Your task to perform on an android device: Add bose soundsport free to the cart on amazon.com, then select checkout. Image 0: 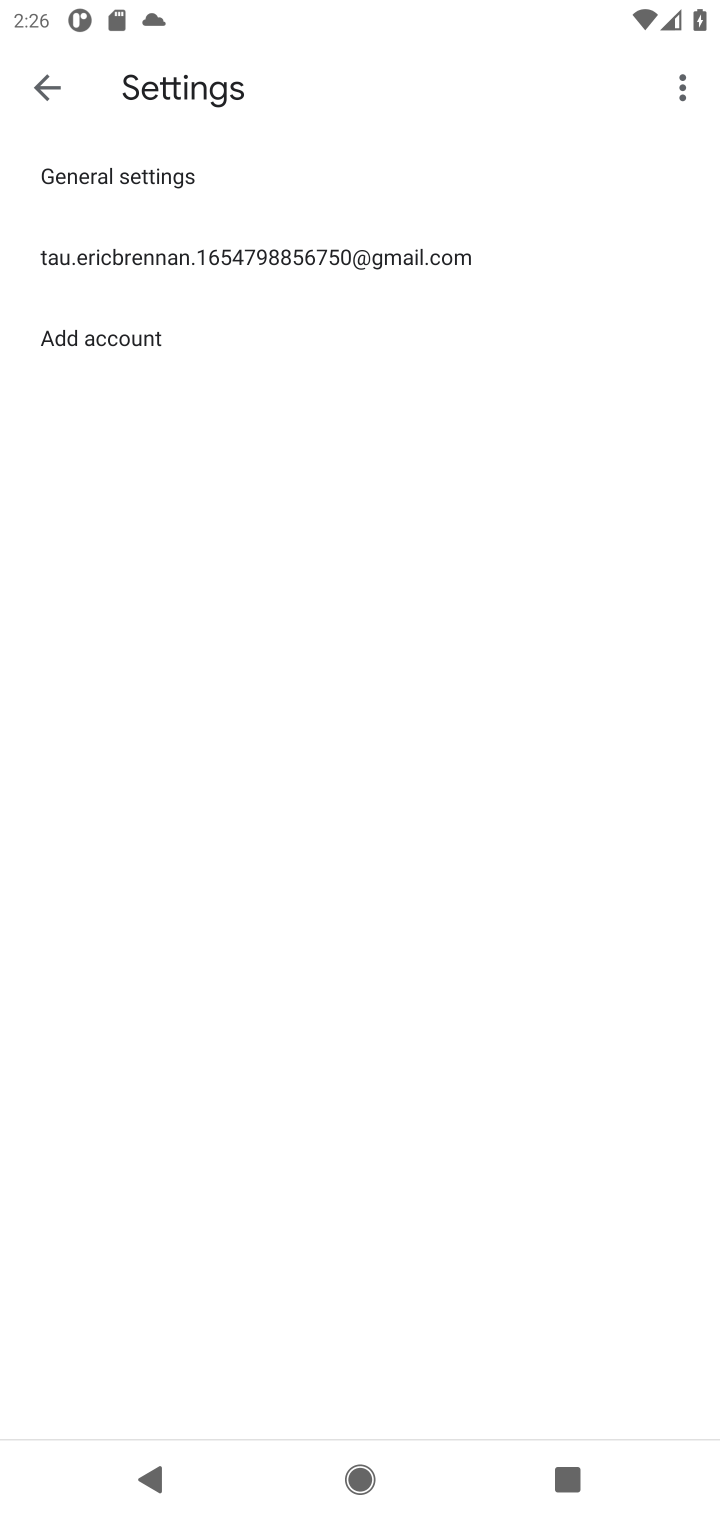
Step 0: press home button
Your task to perform on an android device: Add bose soundsport free to the cart on amazon.com, then select checkout. Image 1: 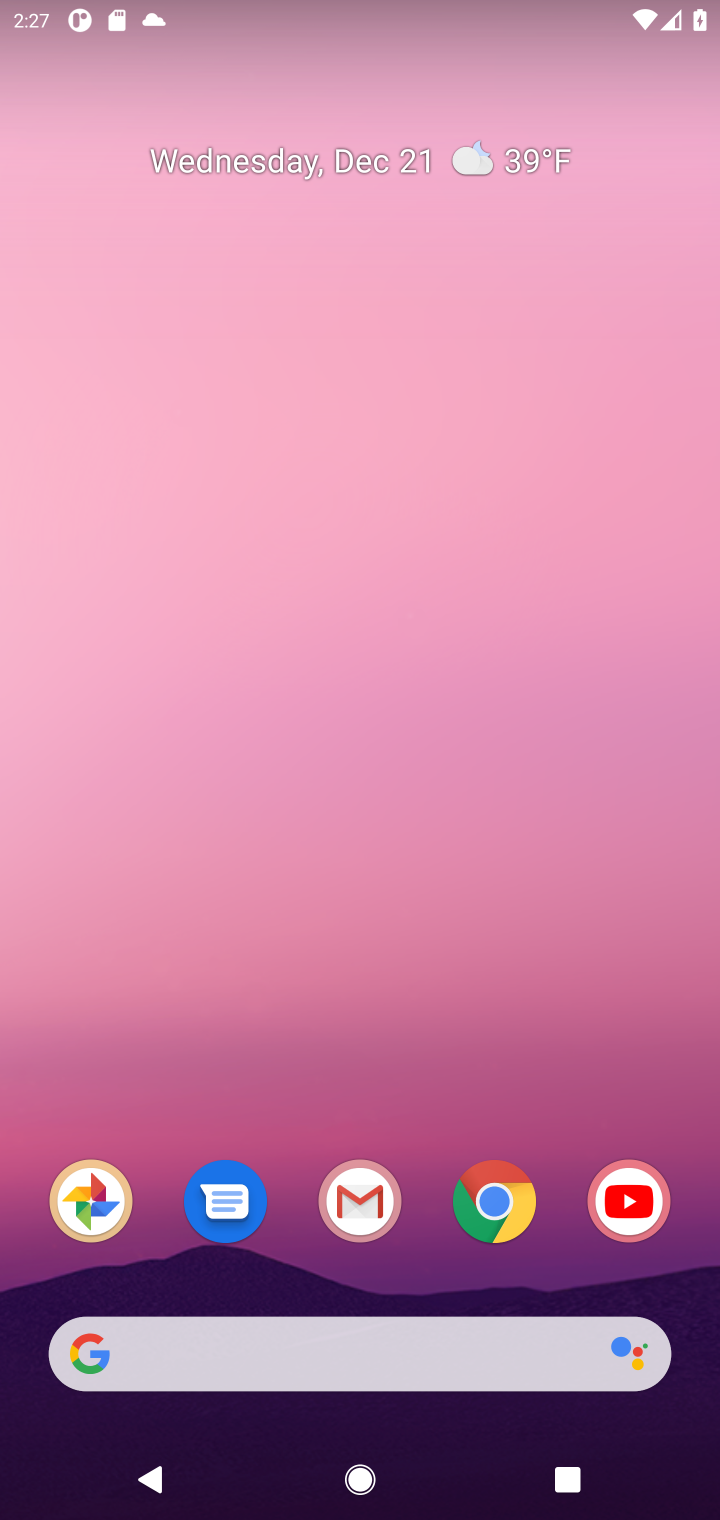
Step 1: click (493, 1211)
Your task to perform on an android device: Add bose soundsport free to the cart on amazon.com, then select checkout. Image 2: 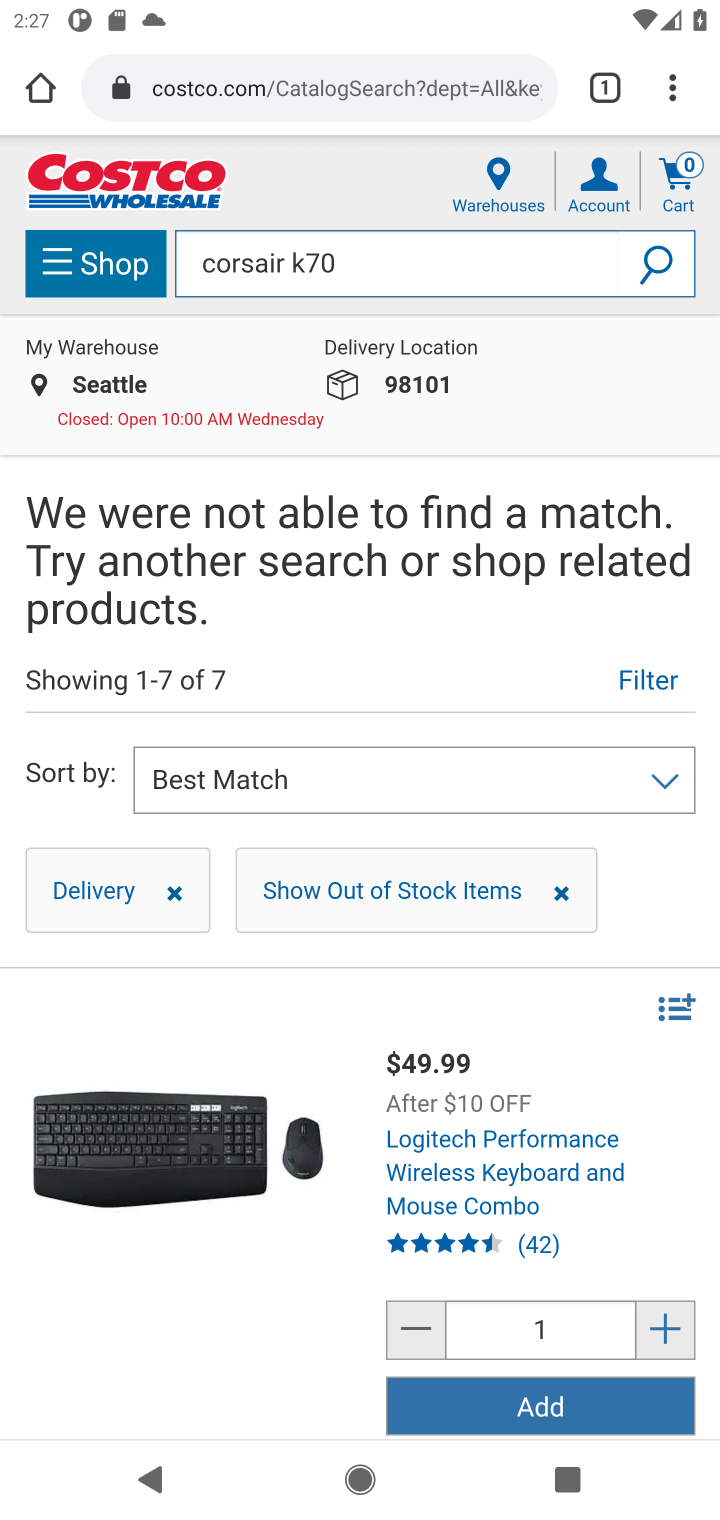
Step 2: click (275, 101)
Your task to perform on an android device: Add bose soundsport free to the cart on amazon.com, then select checkout. Image 3: 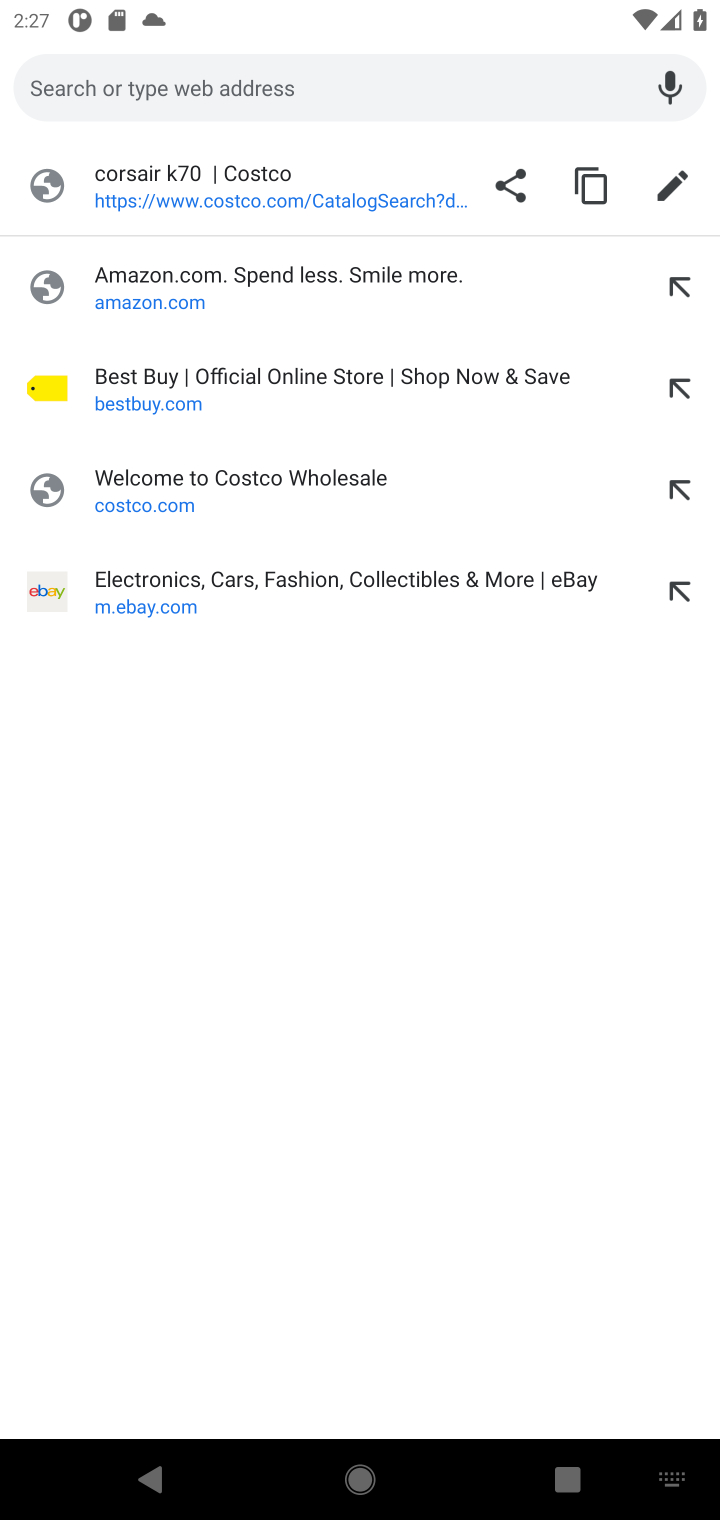
Step 3: click (133, 290)
Your task to perform on an android device: Add bose soundsport free to the cart on amazon.com, then select checkout. Image 4: 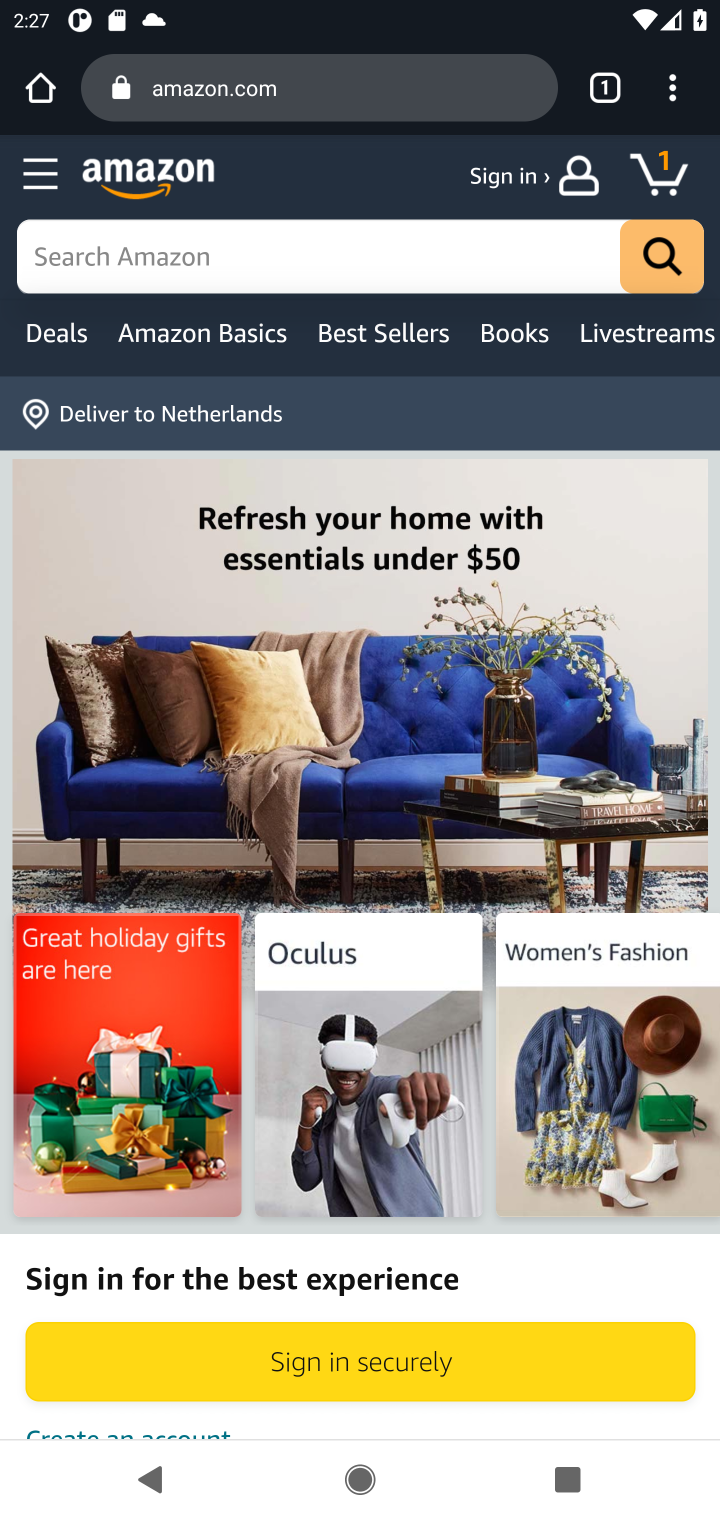
Step 4: click (119, 270)
Your task to perform on an android device: Add bose soundsport free to the cart on amazon.com, then select checkout. Image 5: 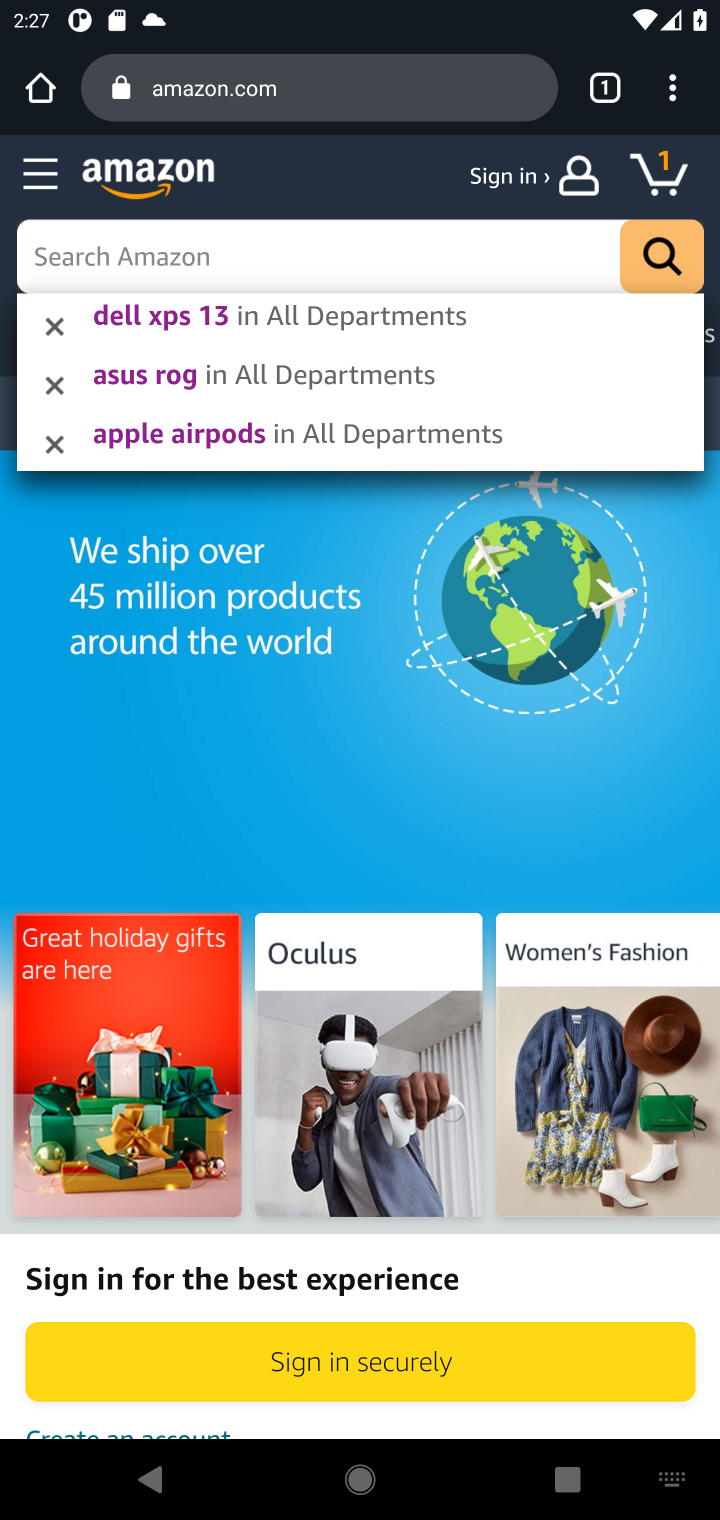
Step 5: type " bose soundsport free"
Your task to perform on an android device: Add bose soundsport free to the cart on amazon.com, then select checkout. Image 6: 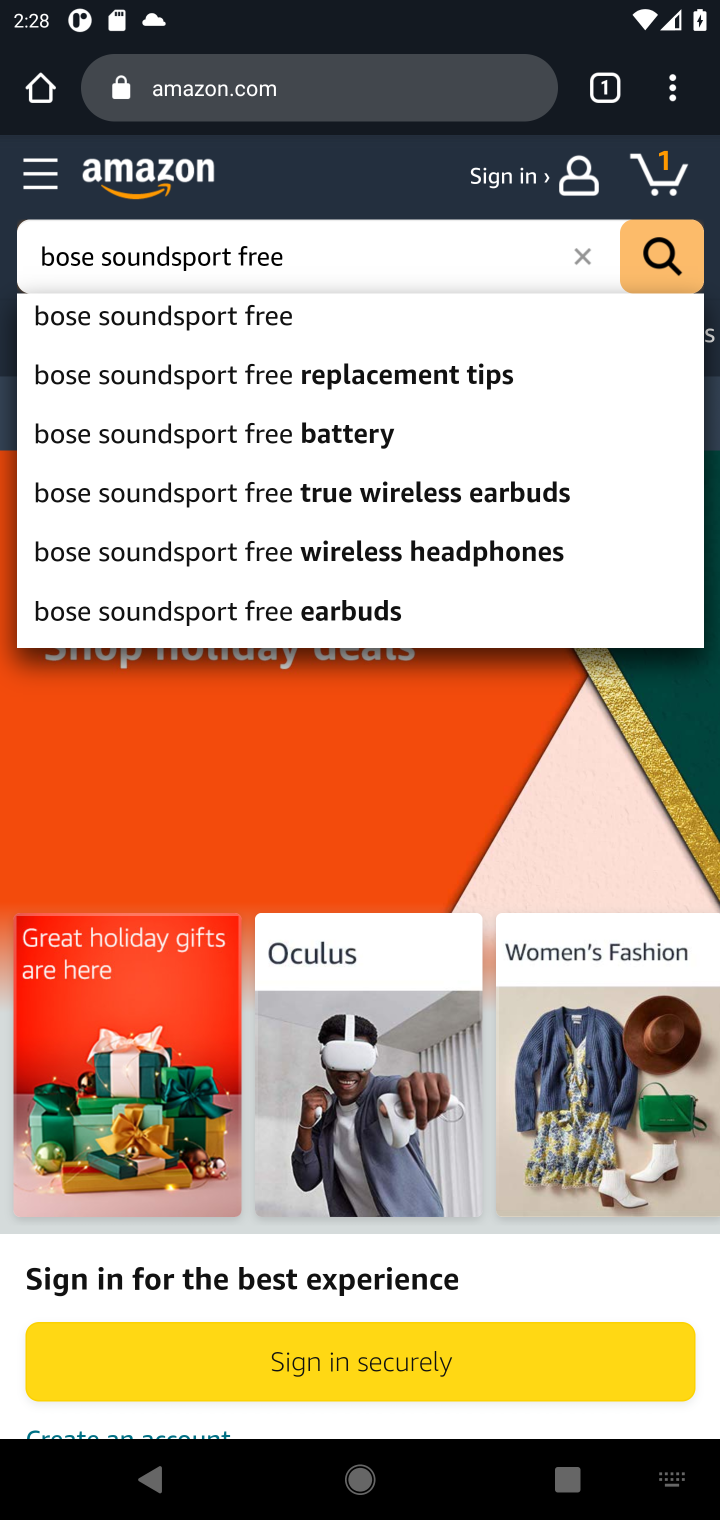
Step 6: click (202, 319)
Your task to perform on an android device: Add bose soundsport free to the cart on amazon.com, then select checkout. Image 7: 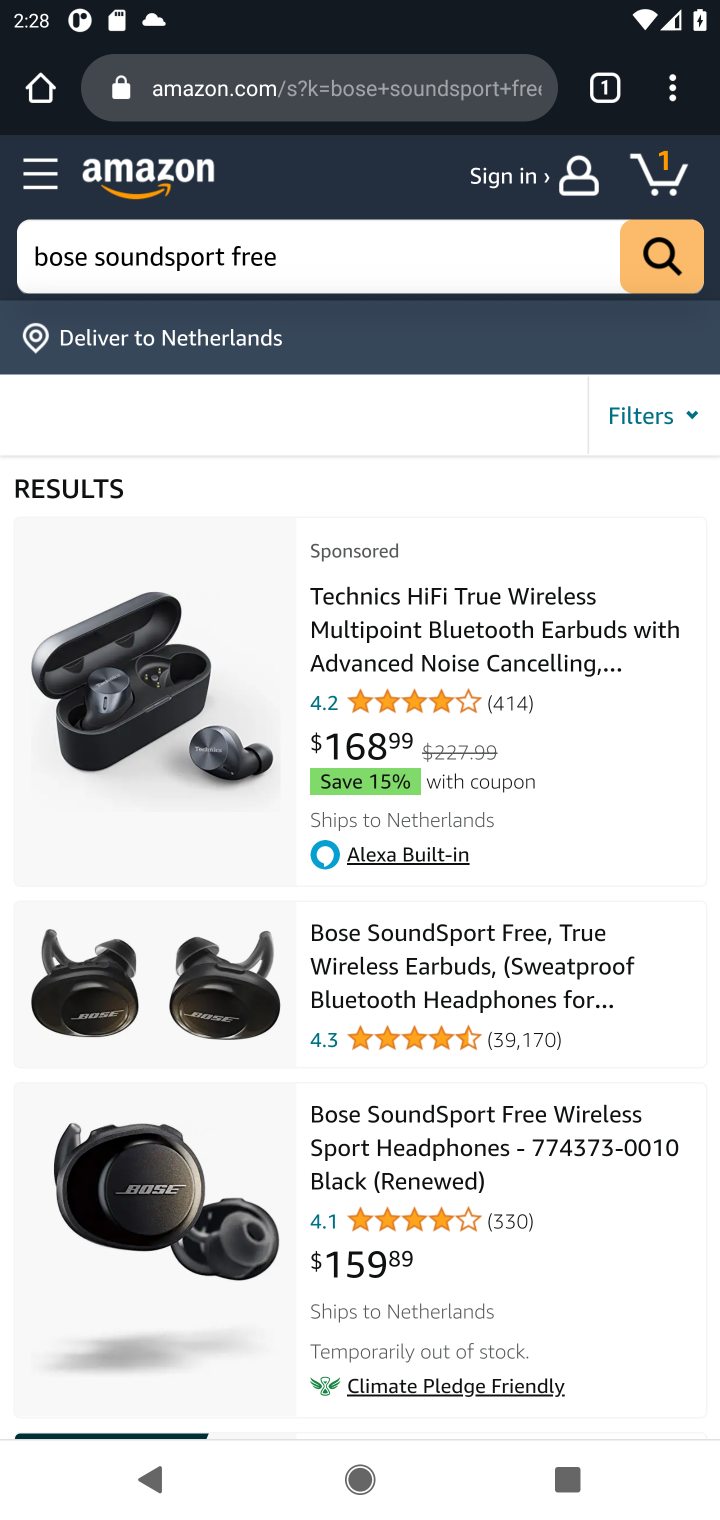
Step 7: drag from (423, 984) to (467, 603)
Your task to perform on an android device: Add bose soundsport free to the cart on amazon.com, then select checkout. Image 8: 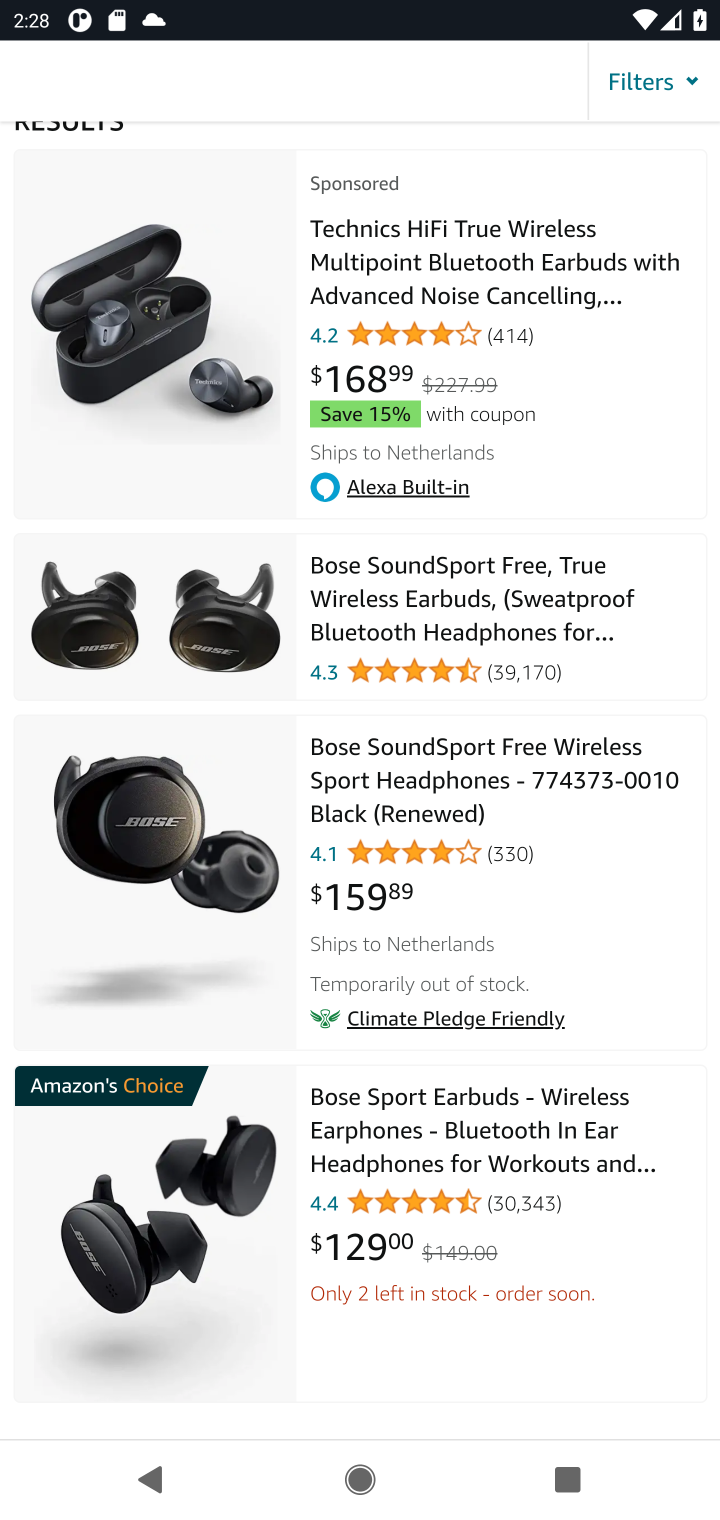
Step 8: click (388, 838)
Your task to perform on an android device: Add bose soundsport free to the cart on amazon.com, then select checkout. Image 9: 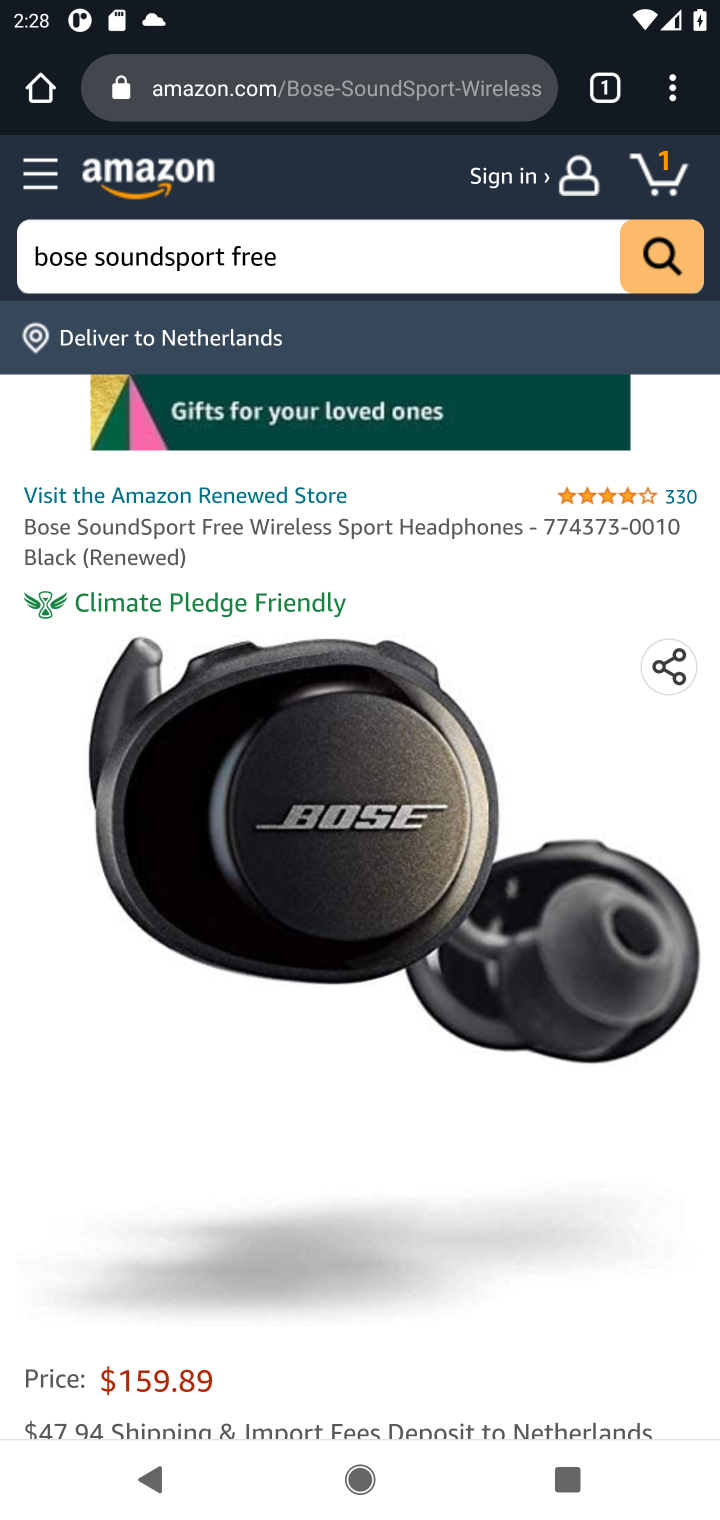
Step 9: drag from (344, 1003) to (385, 522)
Your task to perform on an android device: Add bose soundsport free to the cart on amazon.com, then select checkout. Image 10: 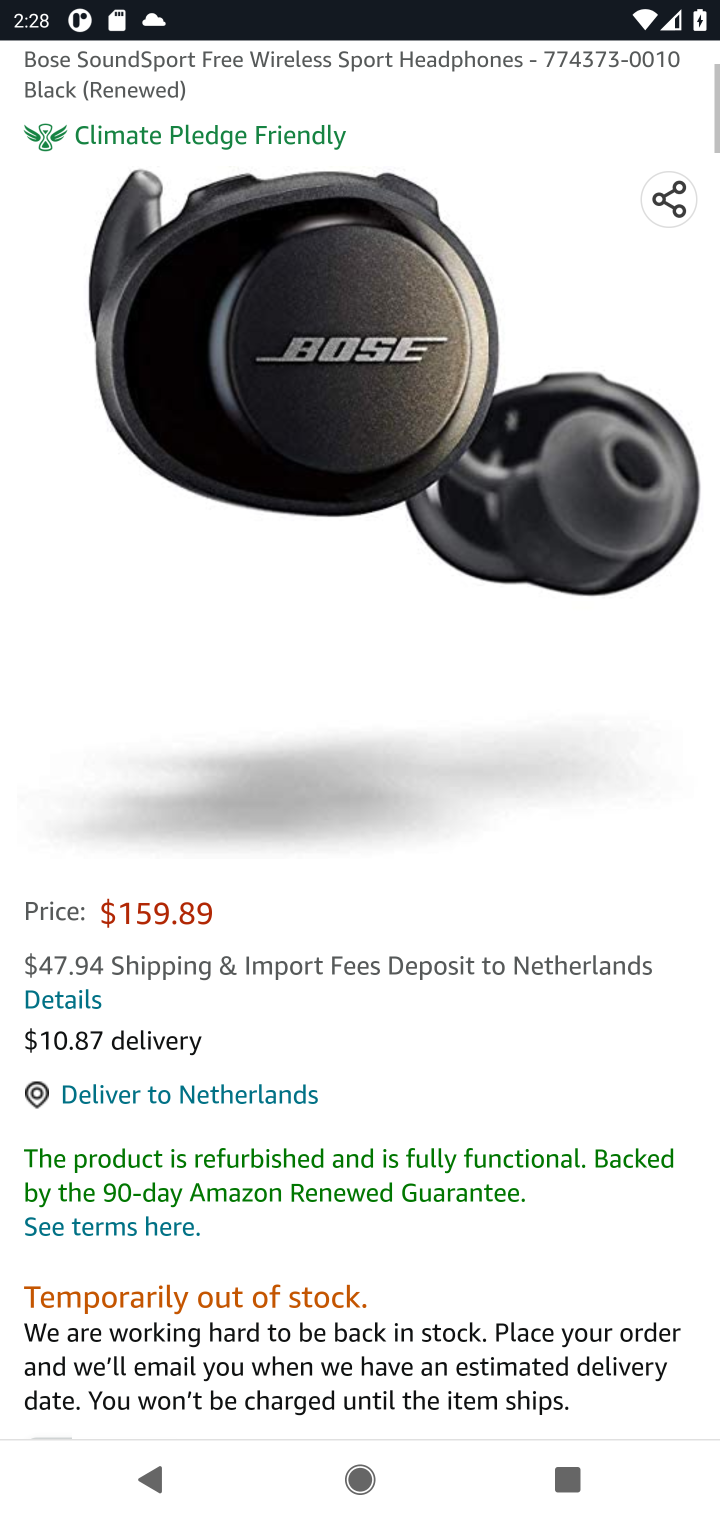
Step 10: drag from (385, 863) to (377, 398)
Your task to perform on an android device: Add bose soundsport free to the cart on amazon.com, then select checkout. Image 11: 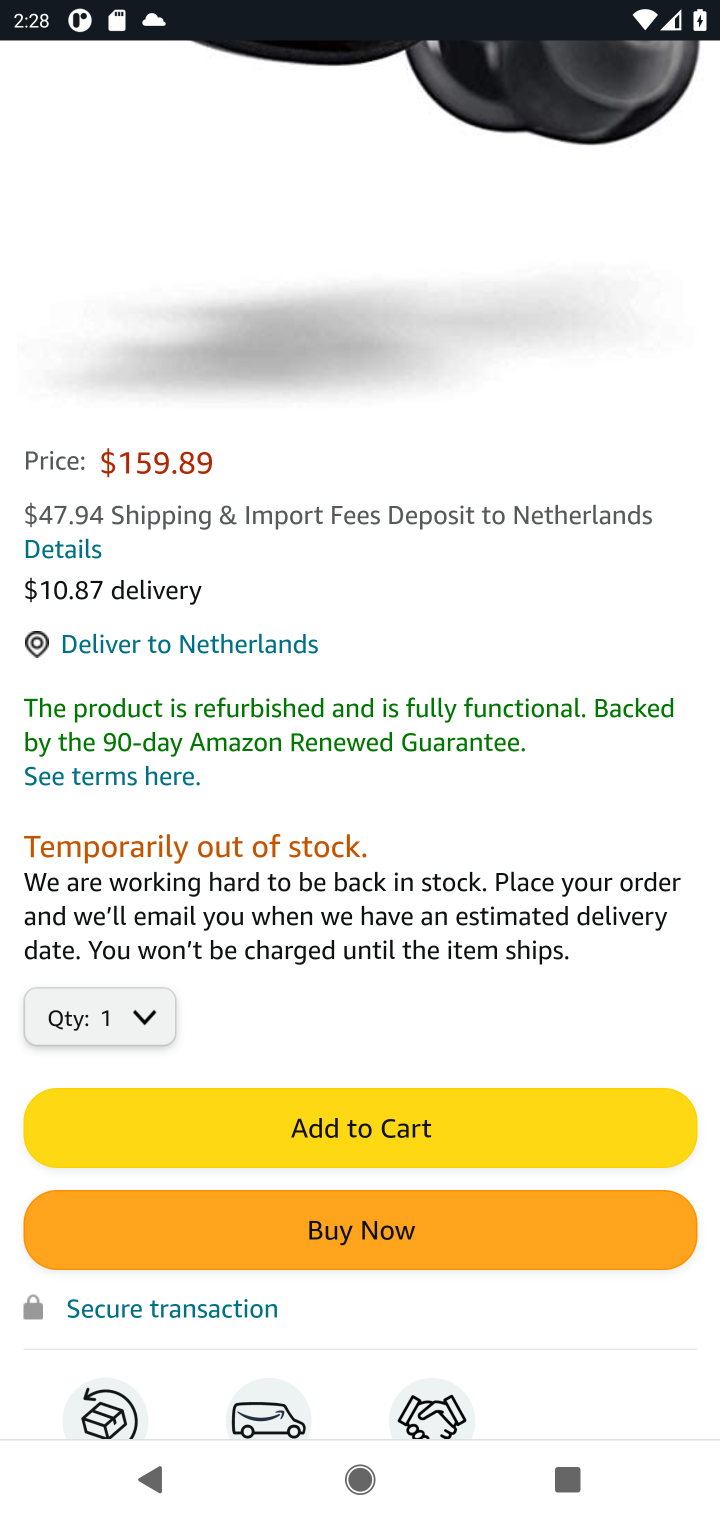
Step 11: click (368, 1117)
Your task to perform on an android device: Add bose soundsport free to the cart on amazon.com, then select checkout. Image 12: 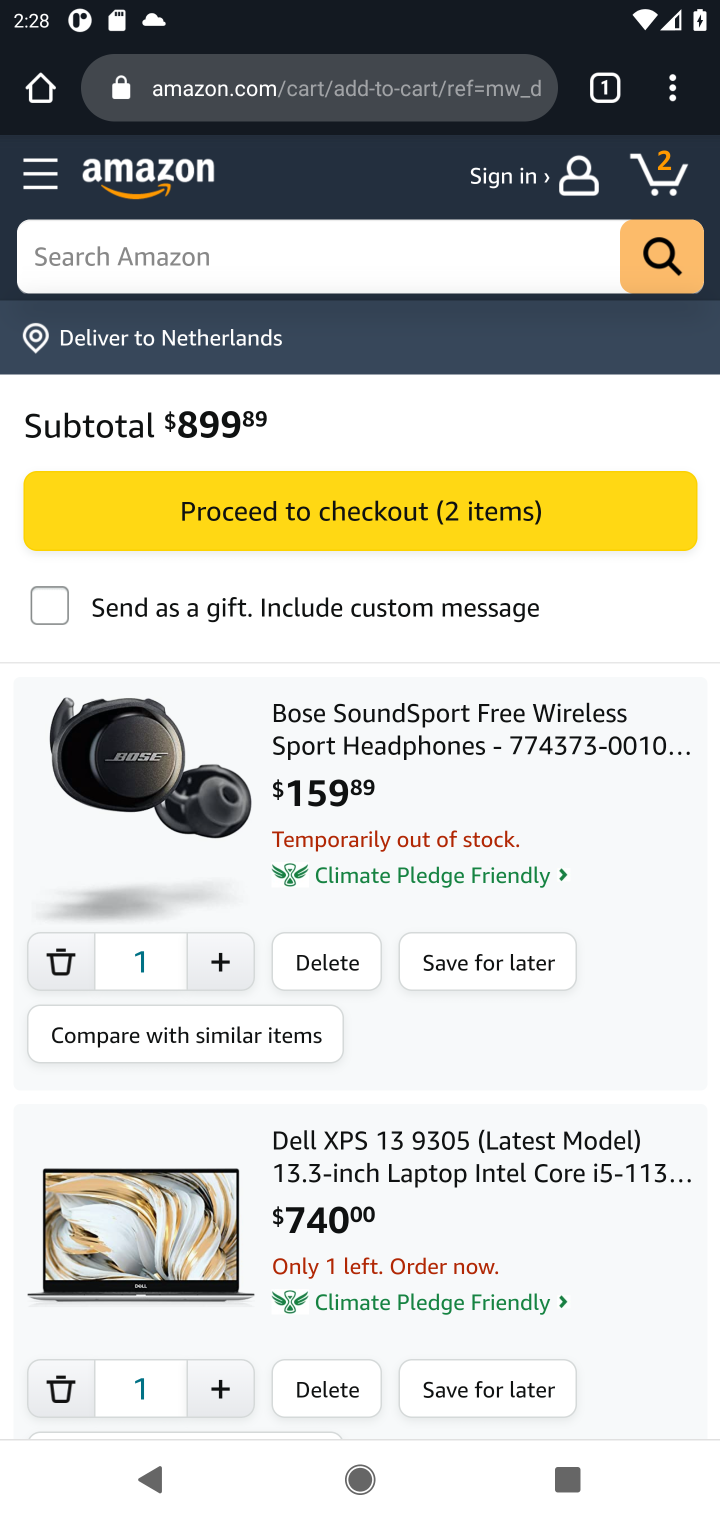
Step 12: click (322, 519)
Your task to perform on an android device: Add bose soundsport free to the cart on amazon.com, then select checkout. Image 13: 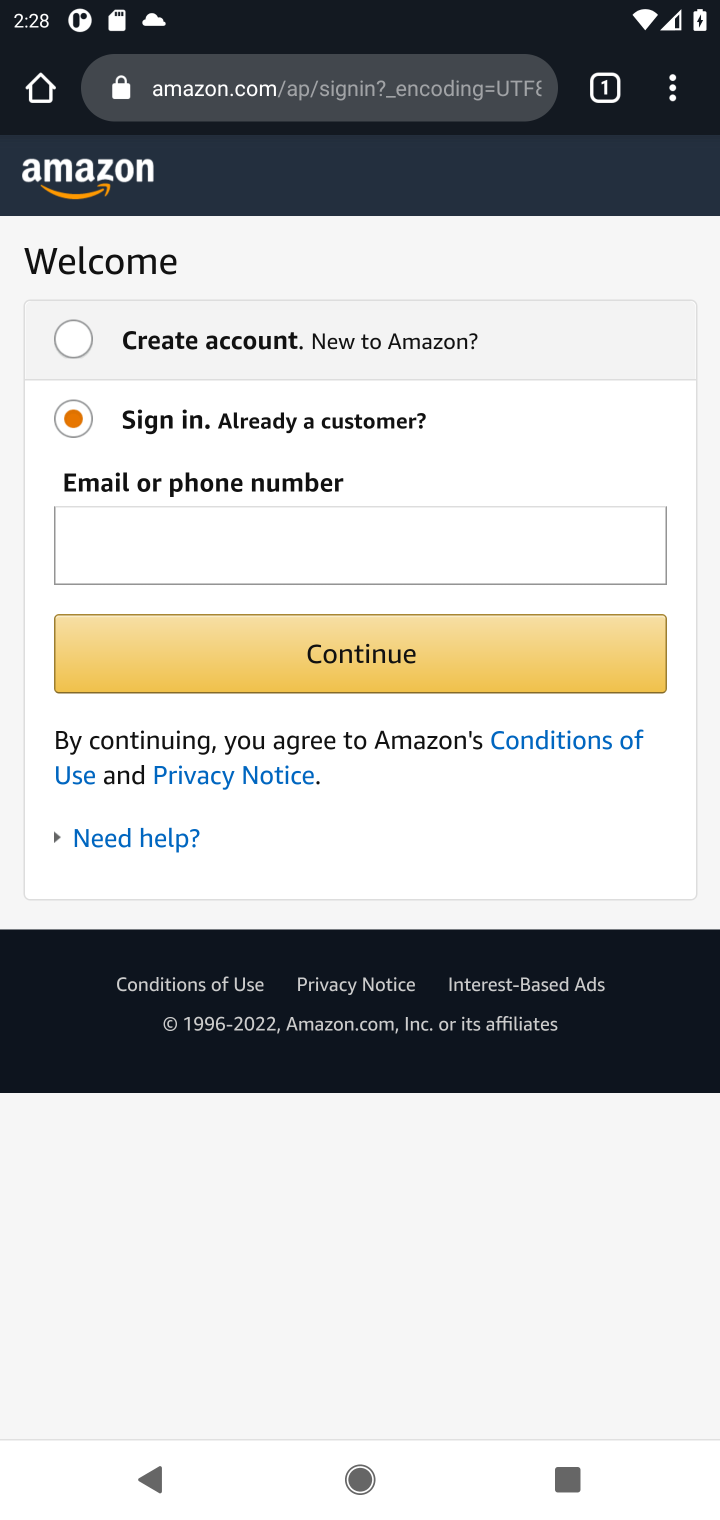
Step 13: task complete